Your task to perform on an android device: Search for "asus rog" on bestbuy.com, select the first entry, add it to the cart, then select checkout. Image 0: 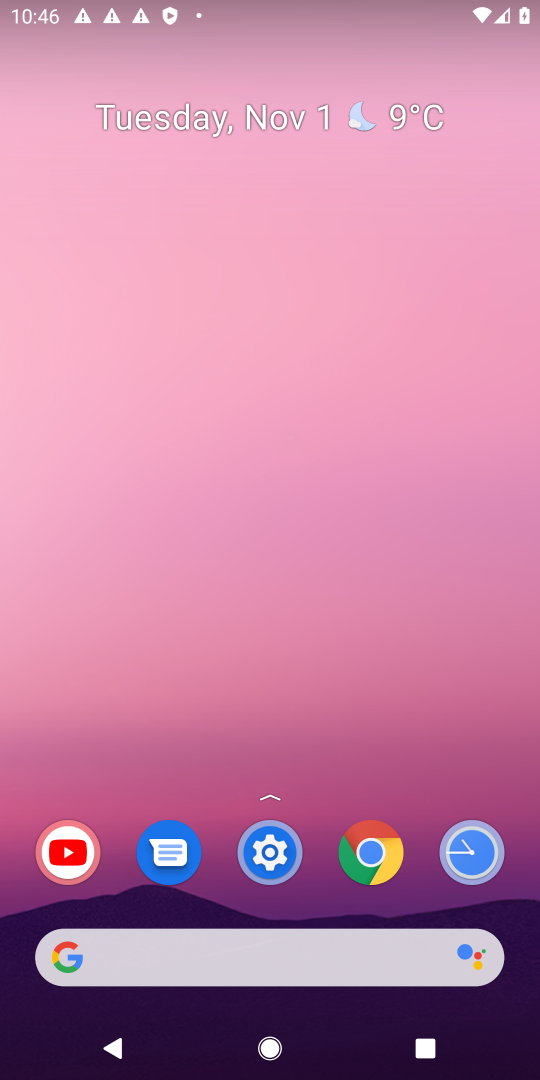
Step 0: drag from (193, 929) to (152, 108)
Your task to perform on an android device: Search for "asus rog" on bestbuy.com, select the first entry, add it to the cart, then select checkout. Image 1: 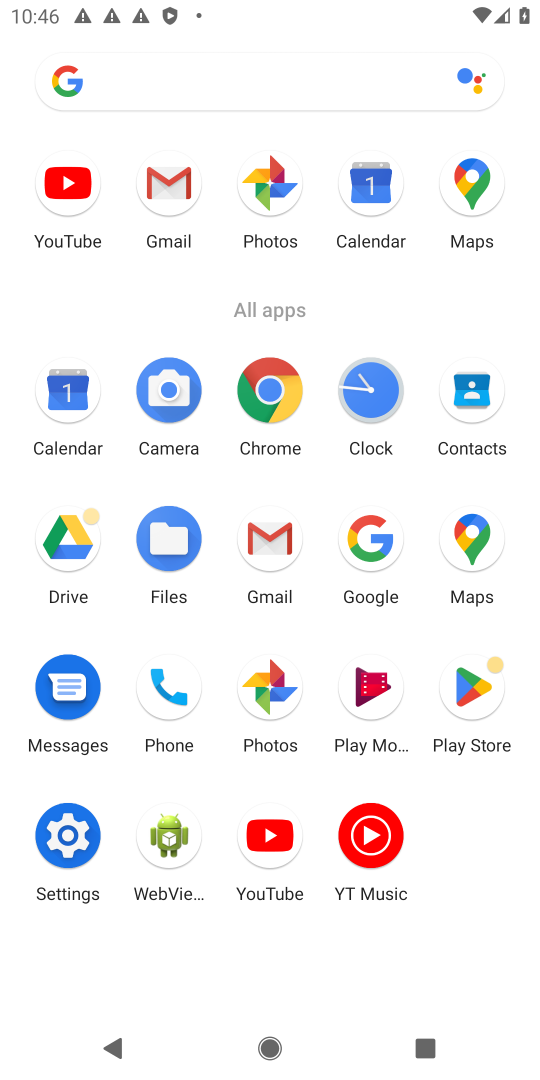
Step 1: click (372, 563)
Your task to perform on an android device: Search for "asus rog" on bestbuy.com, select the first entry, add it to the cart, then select checkout. Image 2: 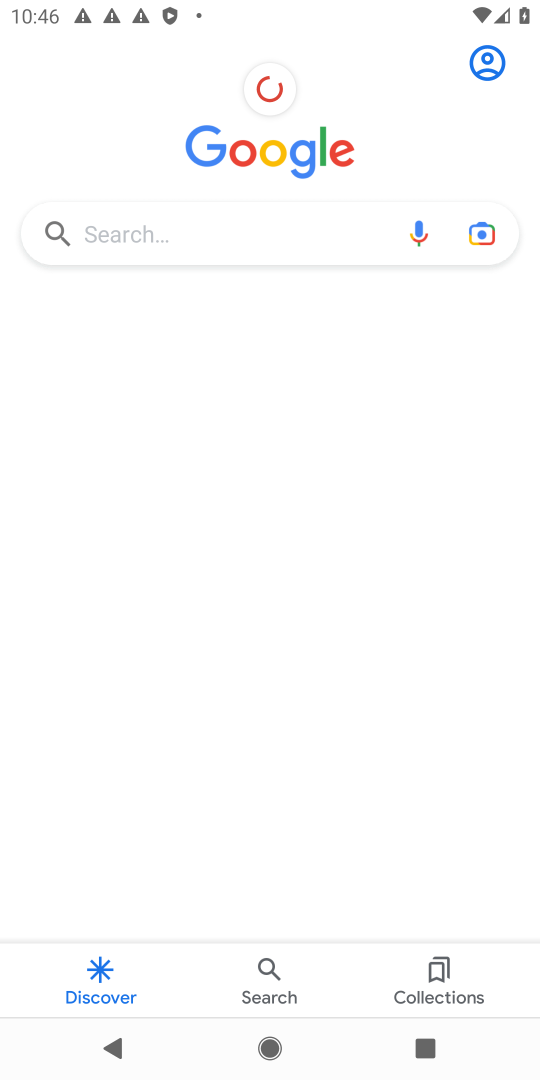
Step 2: click (180, 215)
Your task to perform on an android device: Search for "asus rog" on bestbuy.com, select the first entry, add it to the cart, then select checkout. Image 3: 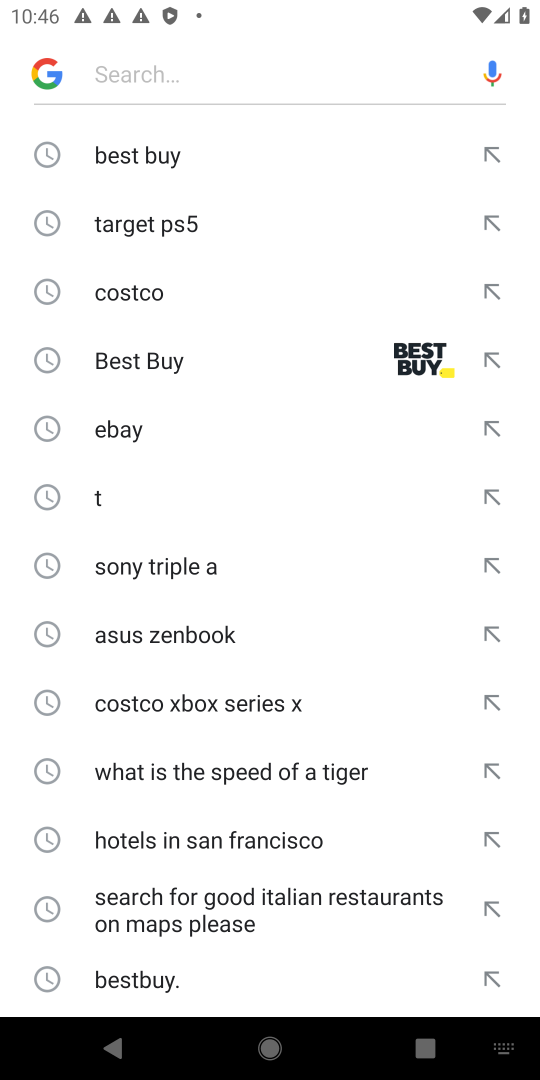
Step 3: type "bestbuy.com"
Your task to perform on an android device: Search for "asus rog" on bestbuy.com, select the first entry, add it to the cart, then select checkout. Image 4: 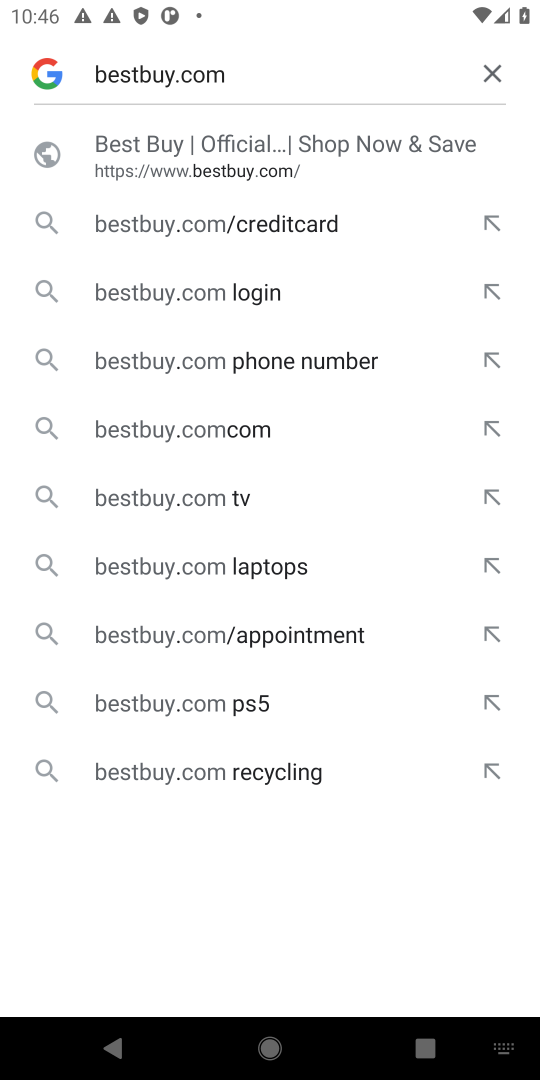
Step 4: click (276, 154)
Your task to perform on an android device: Search for "asus rog" on bestbuy.com, select the first entry, add it to the cart, then select checkout. Image 5: 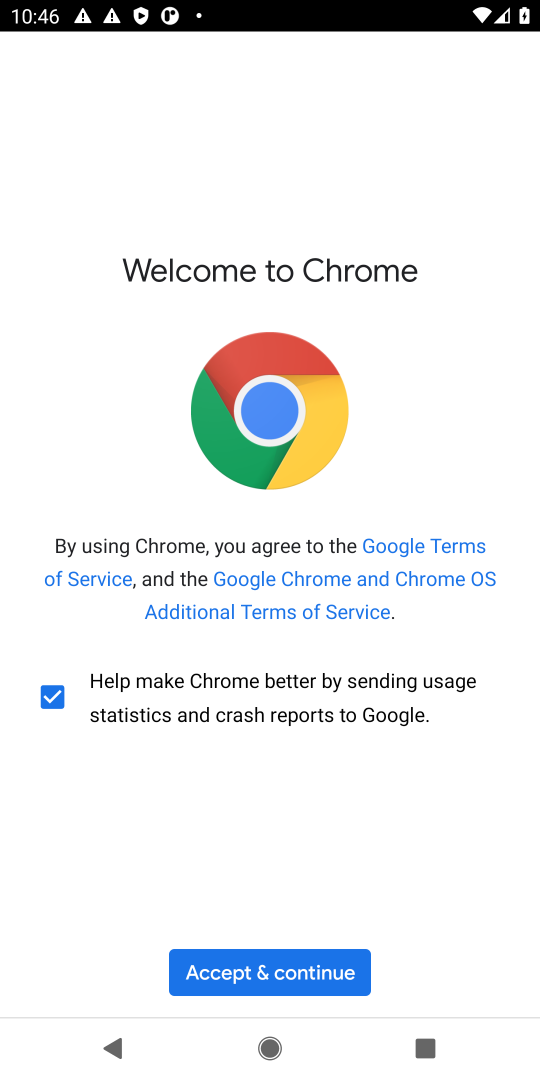
Step 5: click (283, 979)
Your task to perform on an android device: Search for "asus rog" on bestbuy.com, select the first entry, add it to the cart, then select checkout. Image 6: 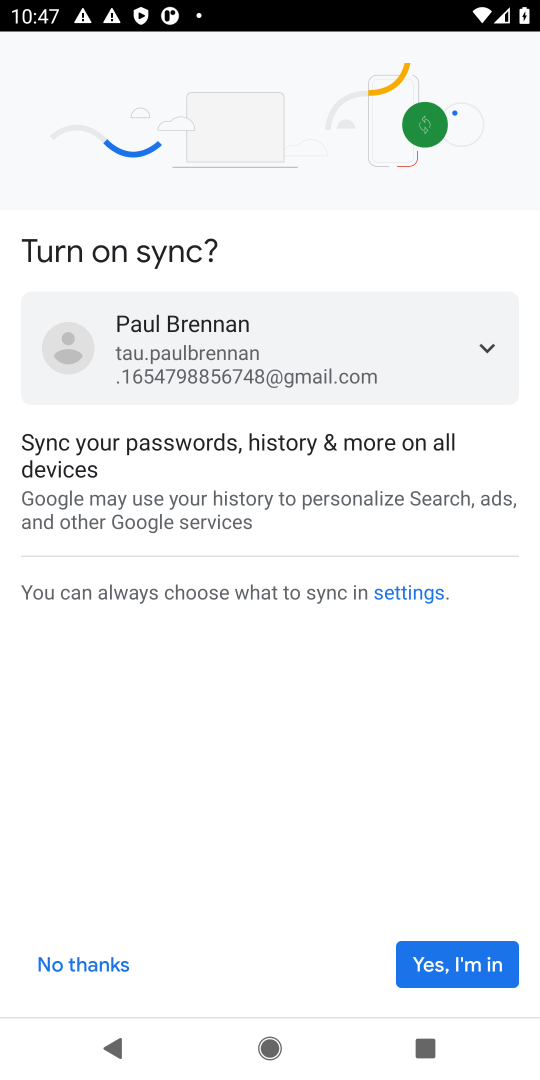
Step 6: click (437, 960)
Your task to perform on an android device: Search for "asus rog" on bestbuy.com, select the first entry, add it to the cart, then select checkout. Image 7: 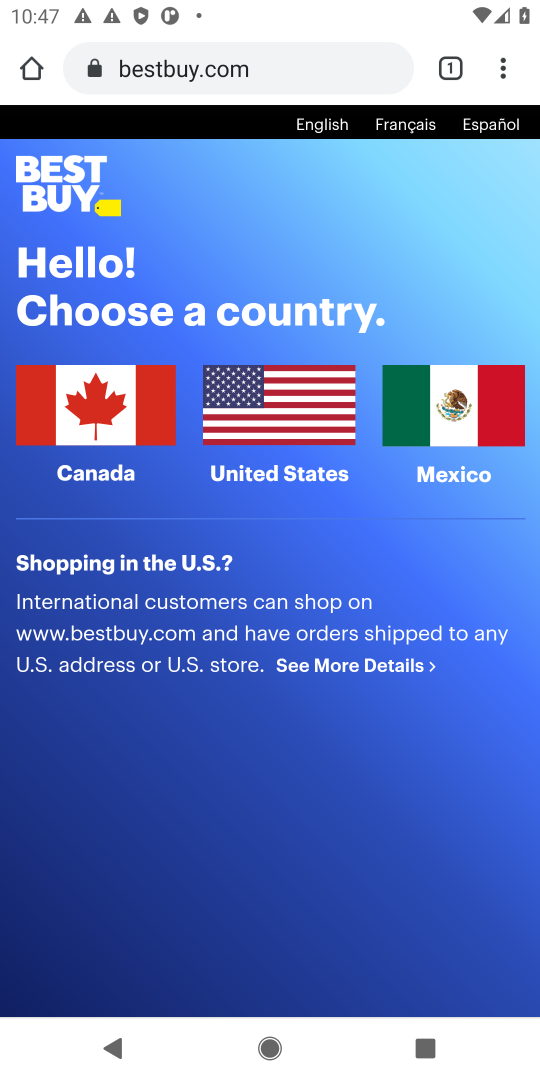
Step 7: click (308, 408)
Your task to perform on an android device: Search for "asus rog" on bestbuy.com, select the first entry, add it to the cart, then select checkout. Image 8: 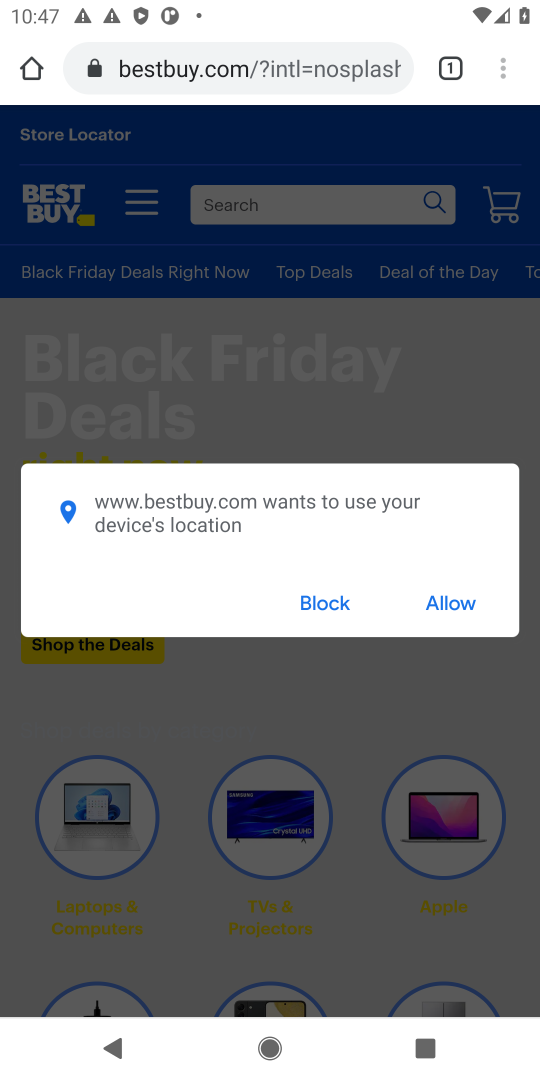
Step 8: click (327, 614)
Your task to perform on an android device: Search for "asus rog" on bestbuy.com, select the first entry, add it to the cart, then select checkout. Image 9: 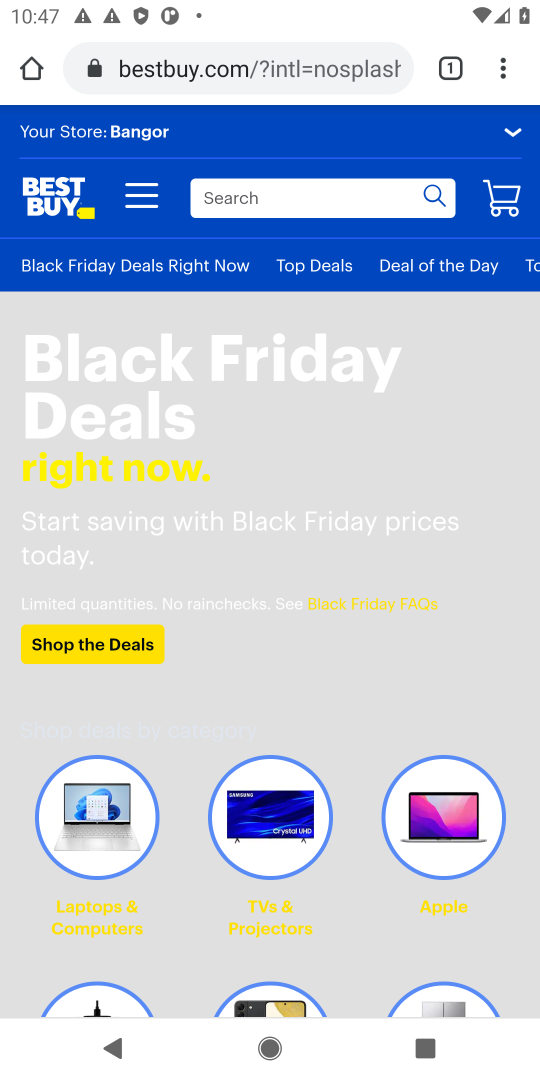
Step 9: click (335, 208)
Your task to perform on an android device: Search for "asus rog" on bestbuy.com, select the first entry, add it to the cart, then select checkout. Image 10: 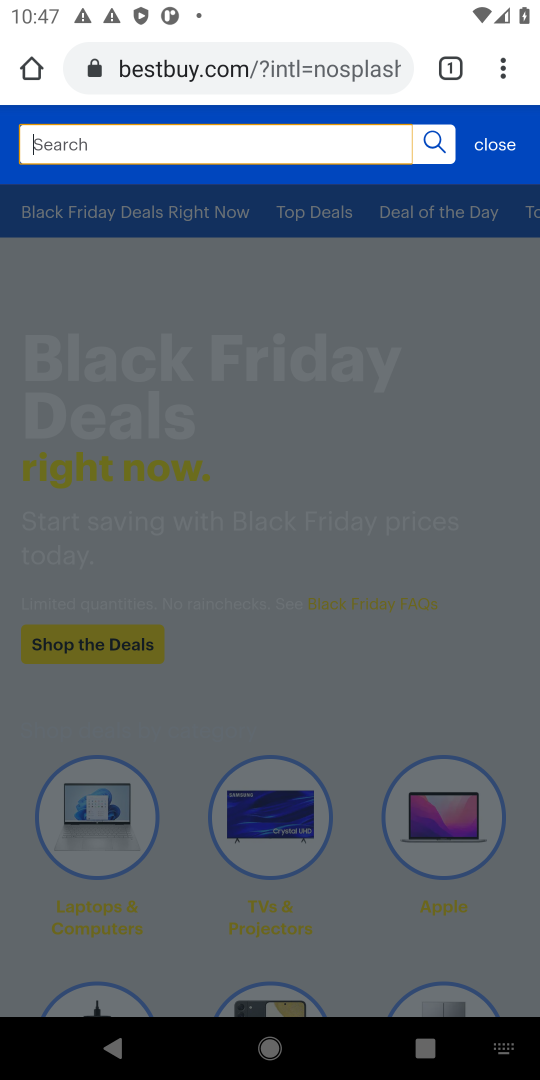
Step 10: type "asus rog"
Your task to perform on an android device: Search for "asus rog" on bestbuy.com, select the first entry, add it to the cart, then select checkout. Image 11: 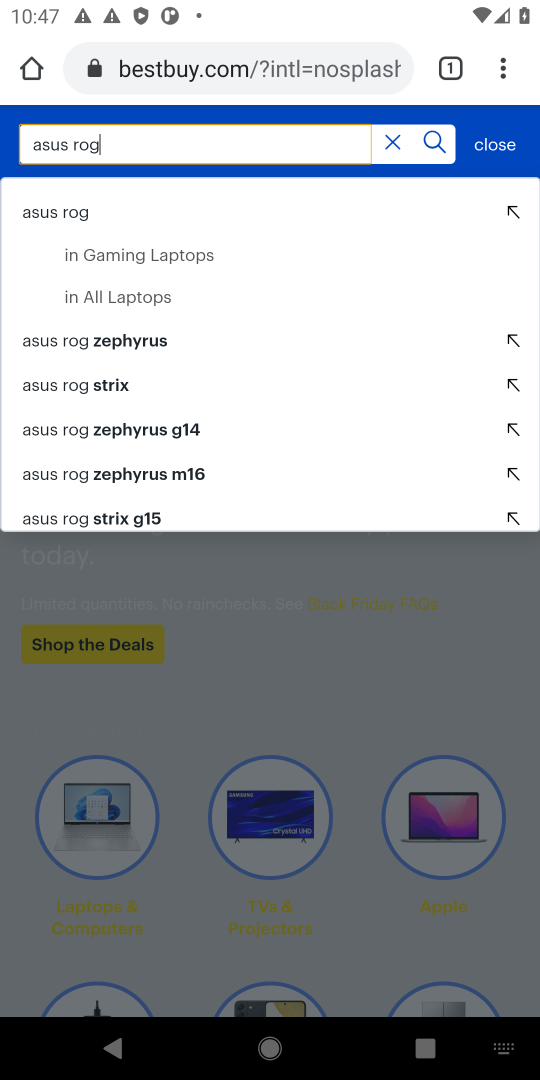
Step 11: click (150, 202)
Your task to perform on an android device: Search for "asus rog" on bestbuy.com, select the first entry, add it to the cart, then select checkout. Image 12: 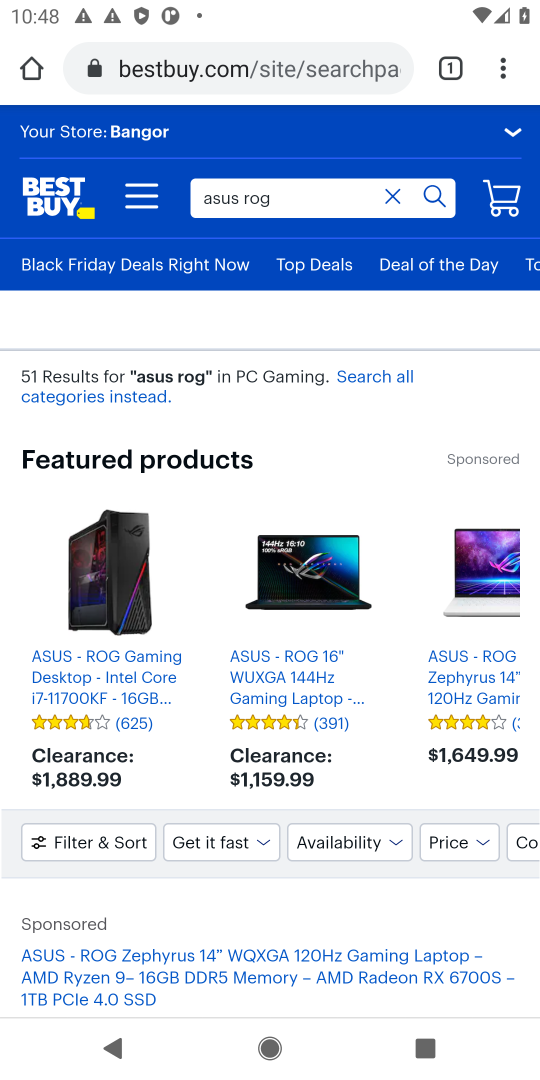
Step 12: click (132, 683)
Your task to perform on an android device: Search for "asus rog" on bestbuy.com, select the first entry, add it to the cart, then select checkout. Image 13: 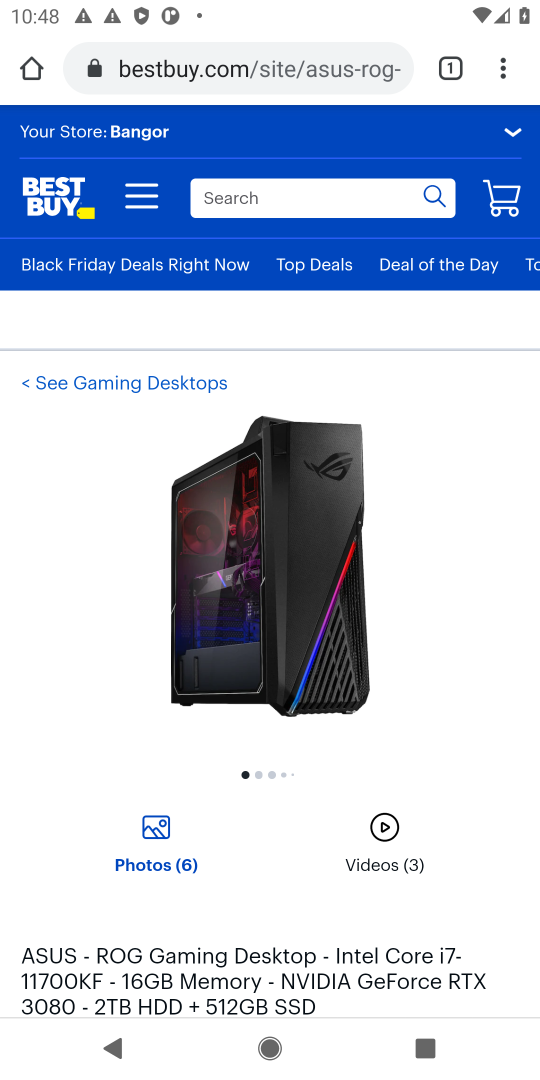
Step 13: drag from (298, 933) to (332, 466)
Your task to perform on an android device: Search for "asus rog" on bestbuy.com, select the first entry, add it to the cart, then select checkout. Image 14: 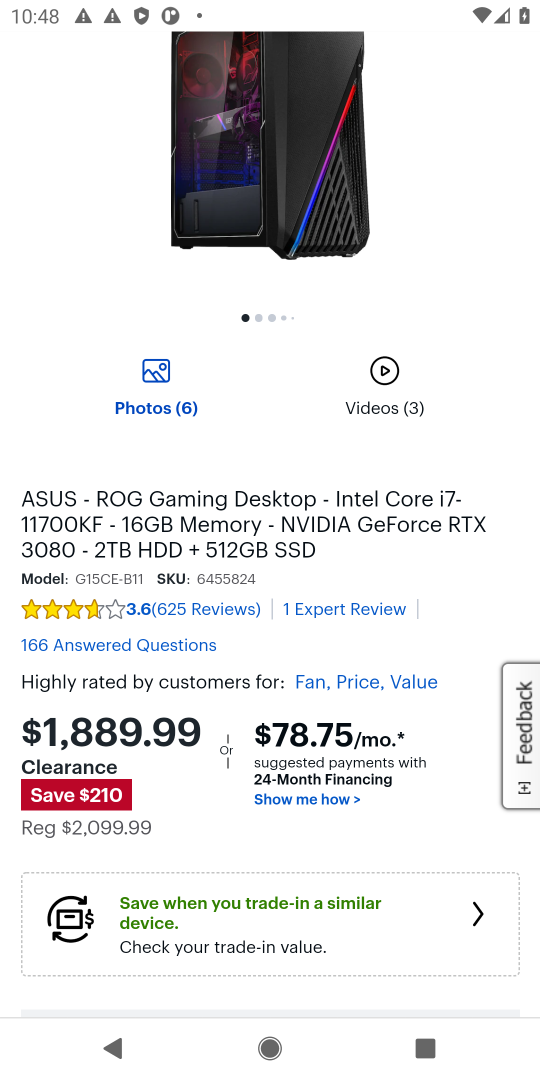
Step 14: drag from (332, 704) to (380, 341)
Your task to perform on an android device: Search for "asus rog" on bestbuy.com, select the first entry, add it to the cart, then select checkout. Image 15: 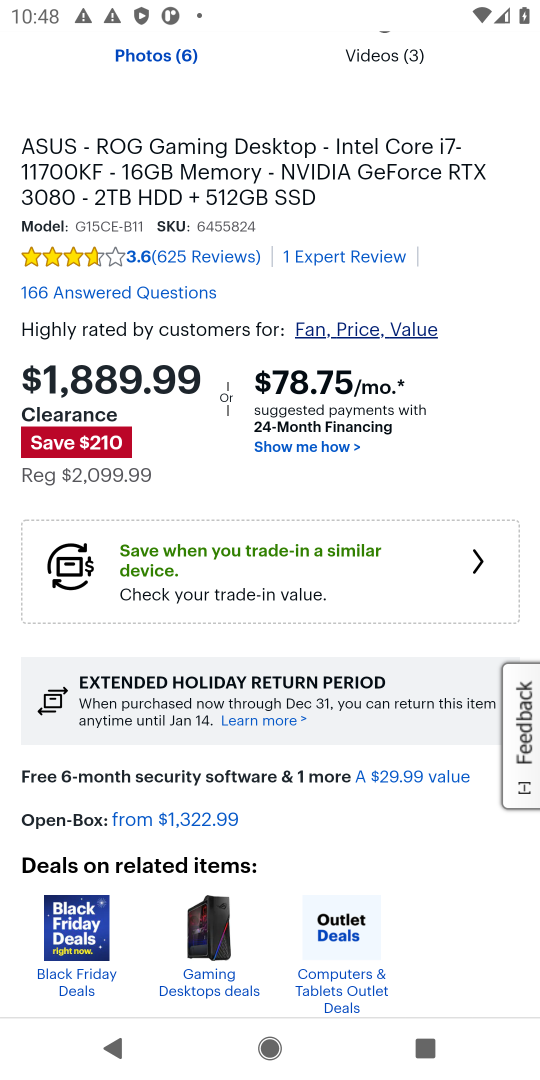
Step 15: drag from (355, 778) to (383, 510)
Your task to perform on an android device: Search for "asus rog" on bestbuy.com, select the first entry, add it to the cart, then select checkout. Image 16: 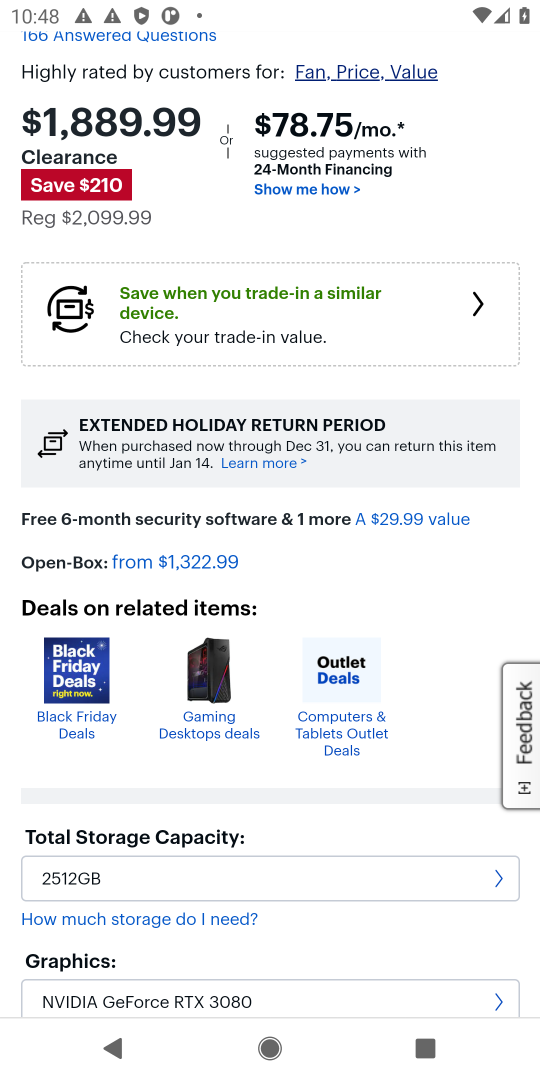
Step 16: drag from (378, 797) to (385, 381)
Your task to perform on an android device: Search for "asus rog" on bestbuy.com, select the first entry, add it to the cart, then select checkout. Image 17: 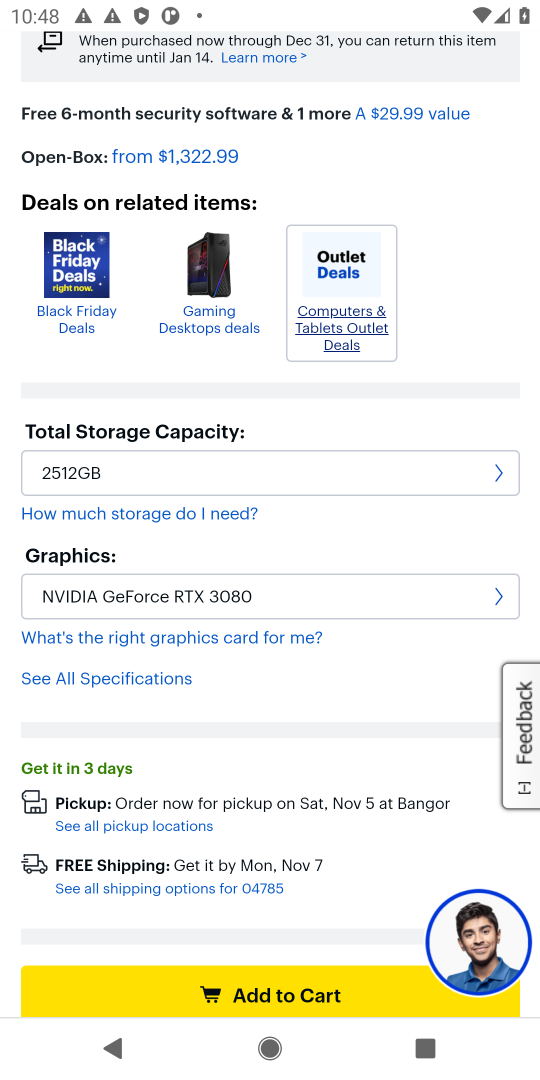
Step 17: drag from (356, 895) to (371, 439)
Your task to perform on an android device: Search for "asus rog" on bestbuy.com, select the first entry, add it to the cart, then select checkout. Image 18: 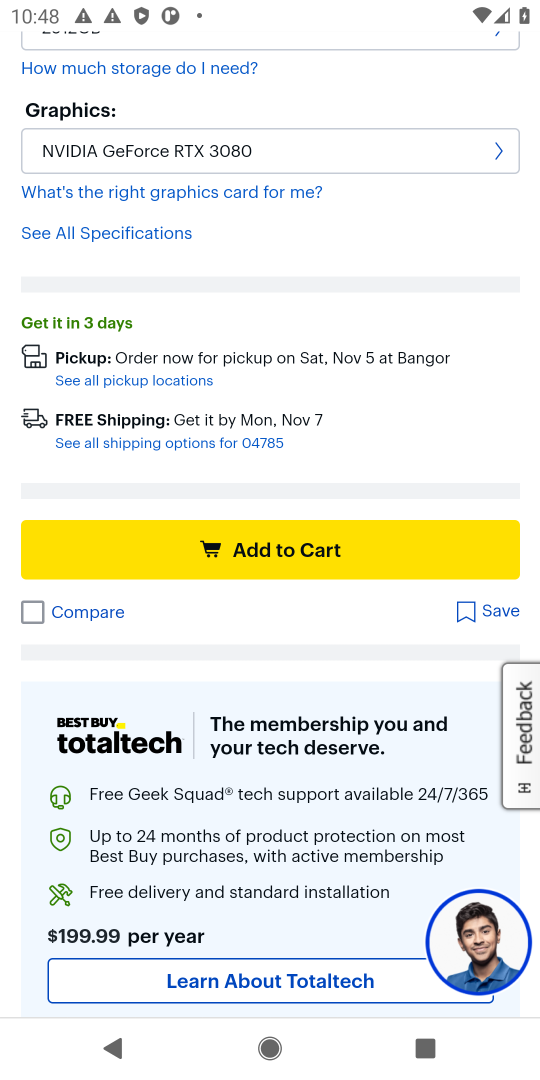
Step 18: click (343, 540)
Your task to perform on an android device: Search for "asus rog" on bestbuy.com, select the first entry, add it to the cart, then select checkout. Image 19: 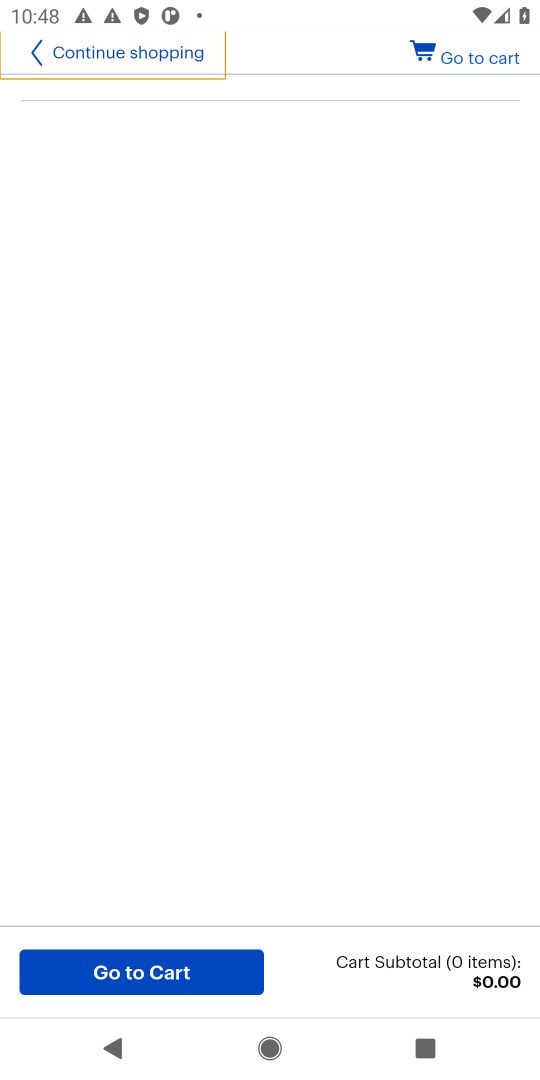
Step 19: drag from (450, 140) to (486, 337)
Your task to perform on an android device: Search for "asus rog" on bestbuy.com, select the first entry, add it to the cart, then select checkout. Image 20: 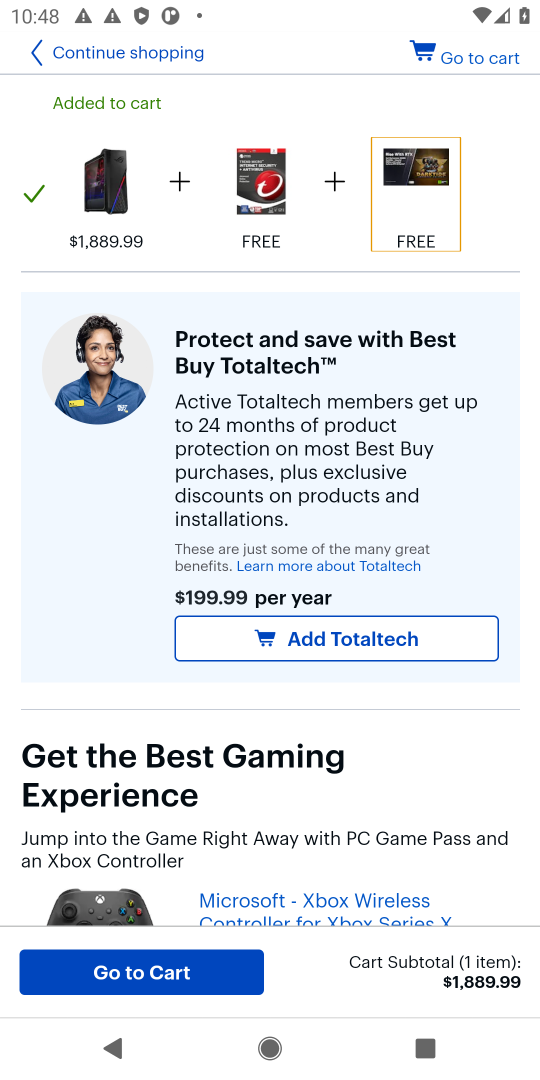
Step 20: click (170, 976)
Your task to perform on an android device: Search for "asus rog" on bestbuy.com, select the first entry, add it to the cart, then select checkout. Image 21: 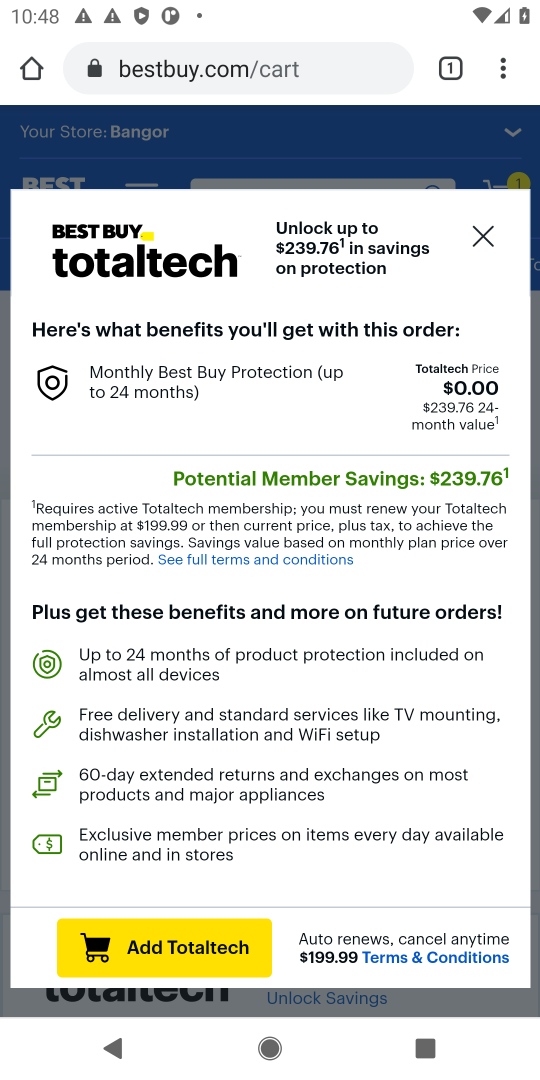
Step 21: click (487, 224)
Your task to perform on an android device: Search for "asus rog" on bestbuy.com, select the first entry, add it to the cart, then select checkout. Image 22: 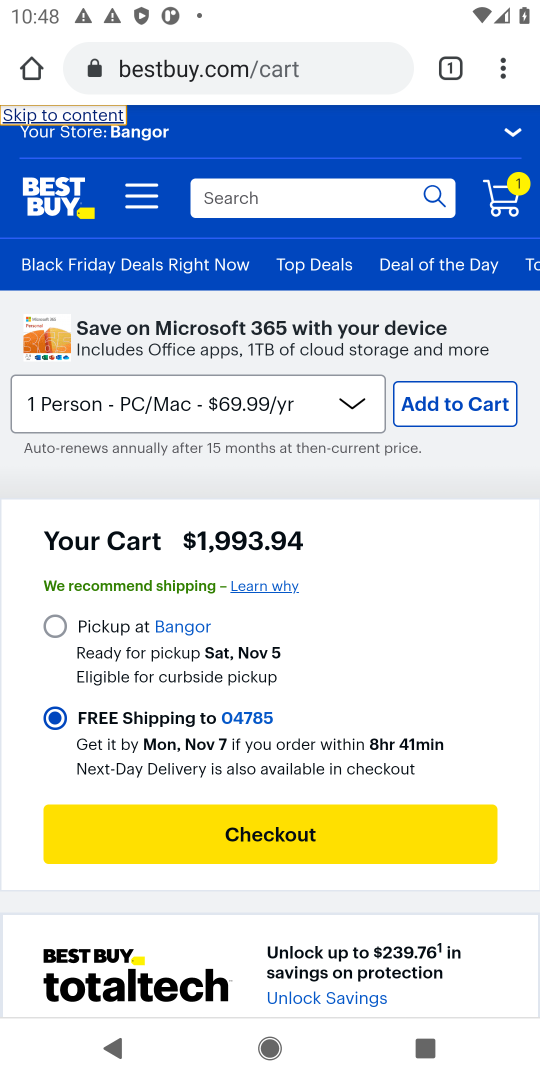
Step 22: click (212, 819)
Your task to perform on an android device: Search for "asus rog" on bestbuy.com, select the first entry, add it to the cart, then select checkout. Image 23: 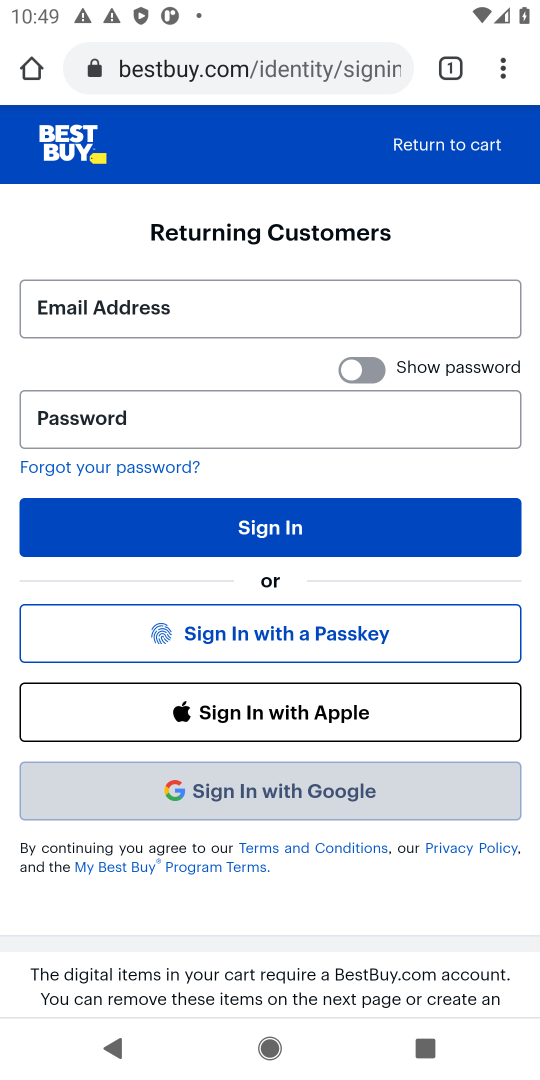
Step 23: task complete